Your task to perform on an android device: set the stopwatch Image 0: 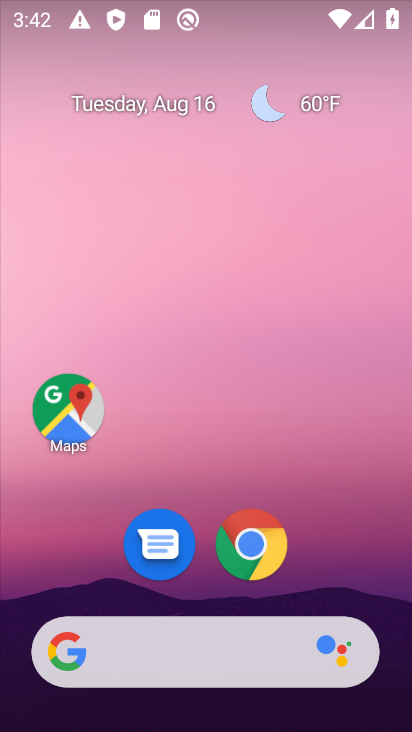
Step 0: drag from (384, 640) to (170, 19)
Your task to perform on an android device: set the stopwatch Image 1: 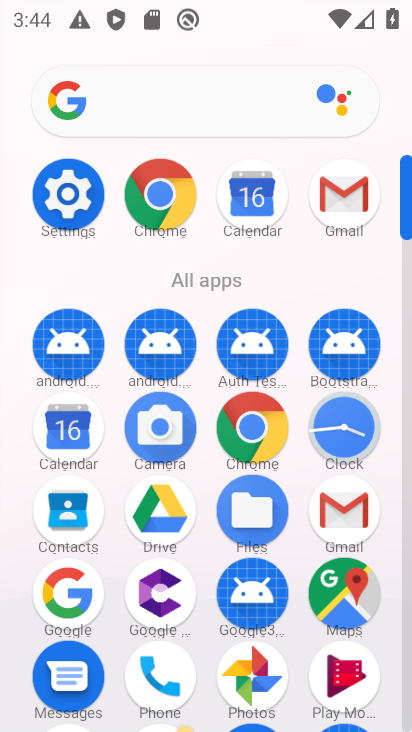
Step 1: click (344, 445)
Your task to perform on an android device: set the stopwatch Image 2: 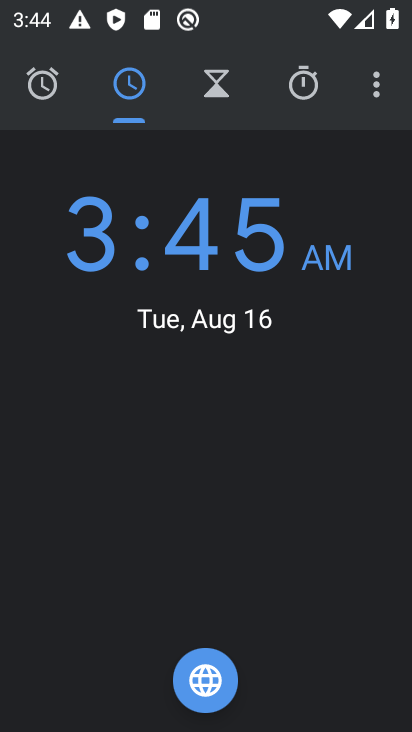
Step 2: click (305, 85)
Your task to perform on an android device: set the stopwatch Image 3: 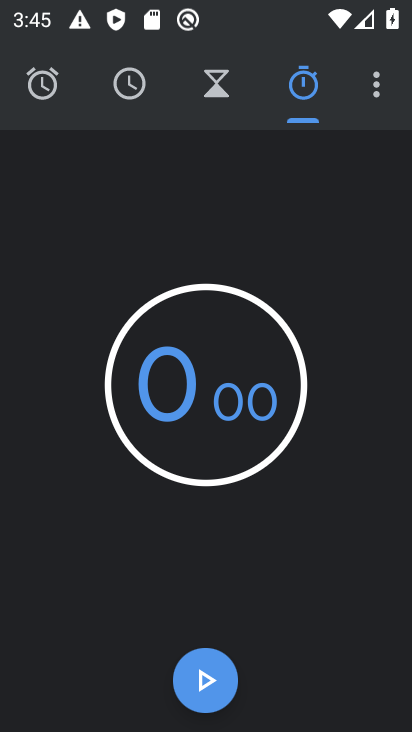
Step 3: click (211, 670)
Your task to perform on an android device: set the stopwatch Image 4: 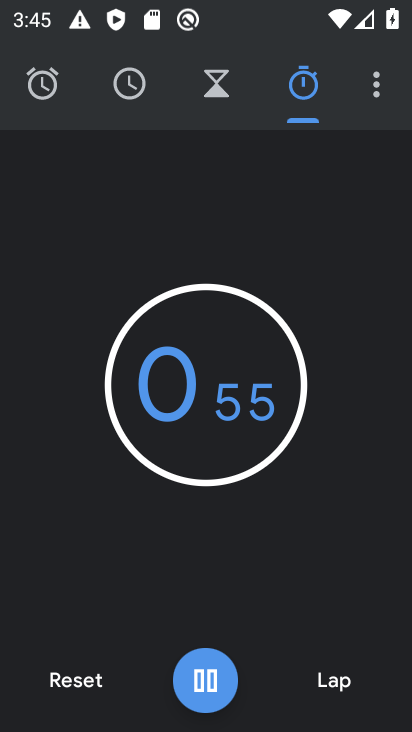
Step 4: click (198, 685)
Your task to perform on an android device: set the stopwatch Image 5: 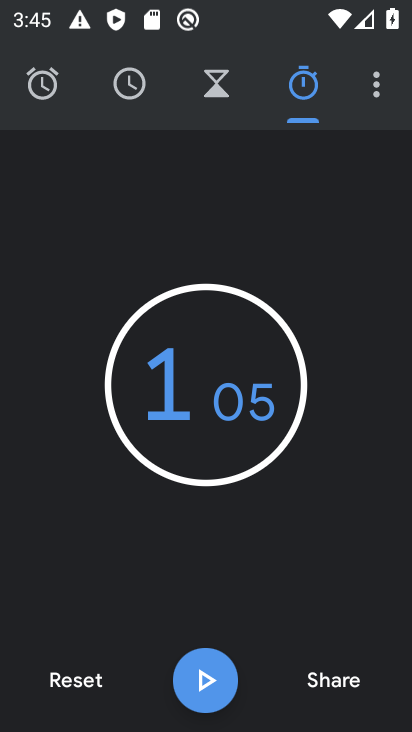
Step 5: task complete